Your task to perform on an android device: change the clock display to show seconds Image 0: 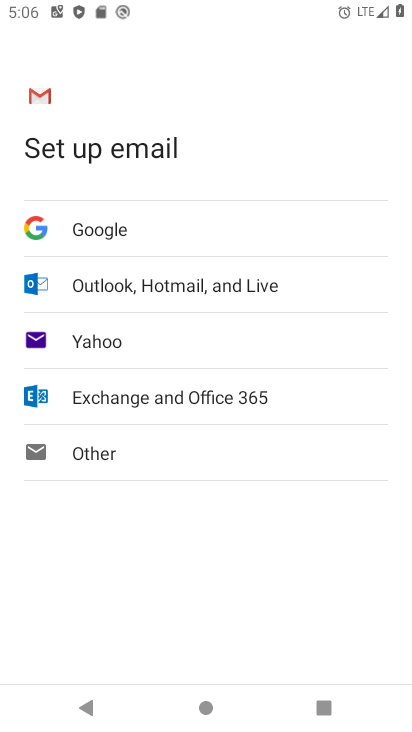
Step 0: press home button
Your task to perform on an android device: change the clock display to show seconds Image 1: 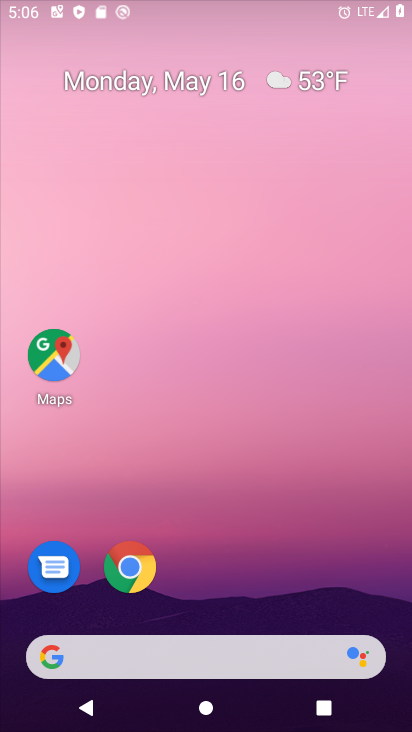
Step 1: drag from (196, 698) to (227, 62)
Your task to perform on an android device: change the clock display to show seconds Image 2: 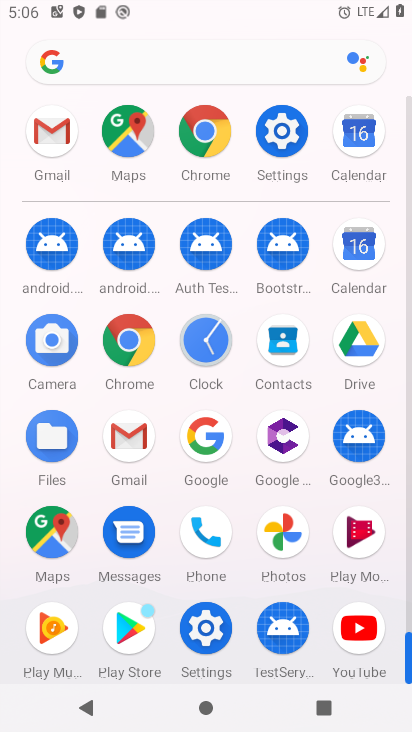
Step 2: click (224, 333)
Your task to perform on an android device: change the clock display to show seconds Image 3: 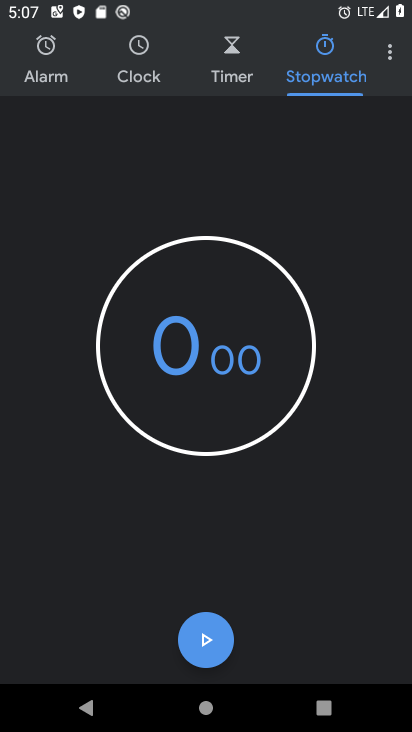
Step 3: click (395, 54)
Your task to perform on an android device: change the clock display to show seconds Image 4: 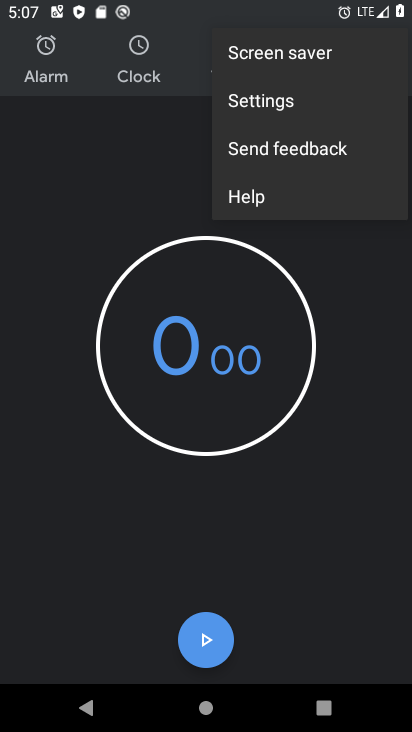
Step 4: click (345, 106)
Your task to perform on an android device: change the clock display to show seconds Image 5: 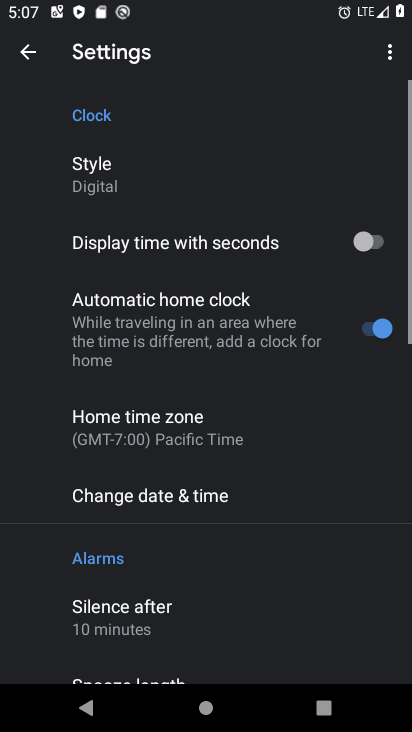
Step 5: click (379, 239)
Your task to perform on an android device: change the clock display to show seconds Image 6: 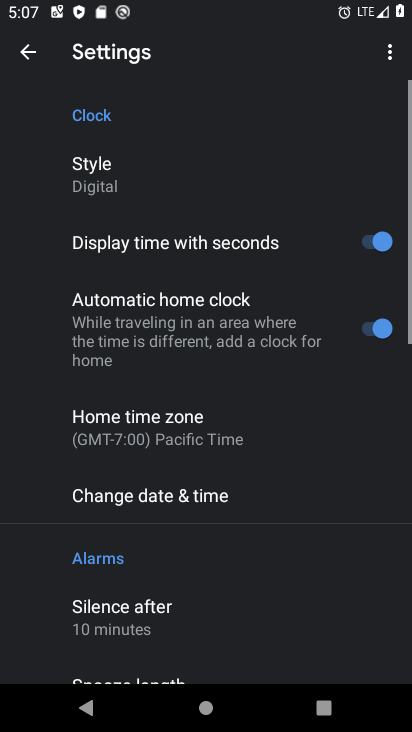
Step 6: task complete